Your task to perform on an android device: turn on wifi Image 0: 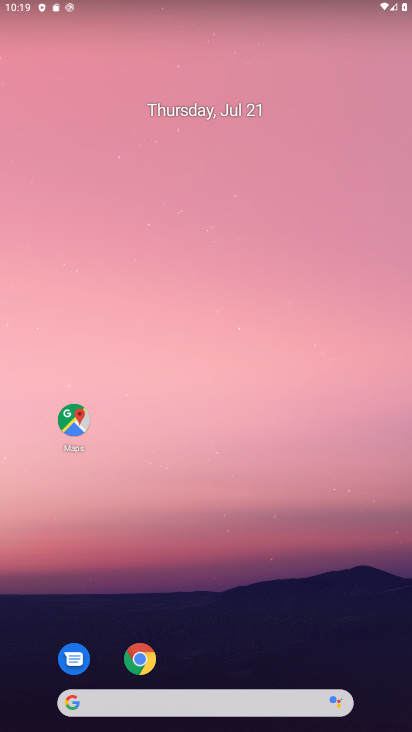
Step 0: drag from (223, 730) to (226, 158)
Your task to perform on an android device: turn on wifi Image 1: 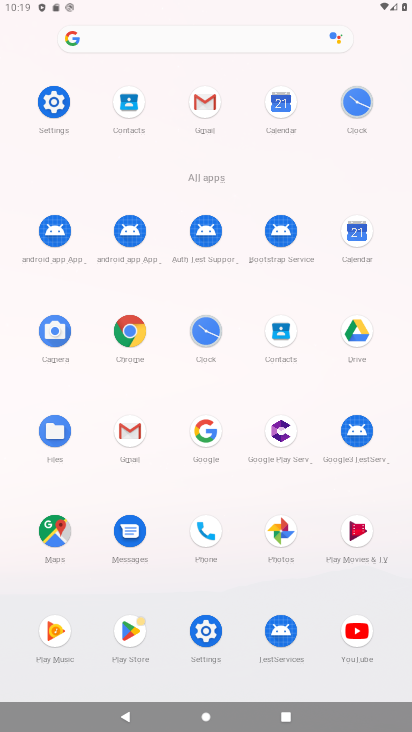
Step 1: click (60, 99)
Your task to perform on an android device: turn on wifi Image 2: 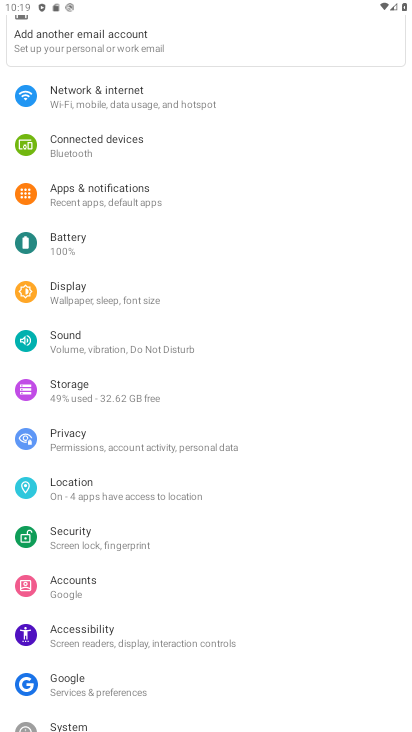
Step 2: click (67, 94)
Your task to perform on an android device: turn on wifi Image 3: 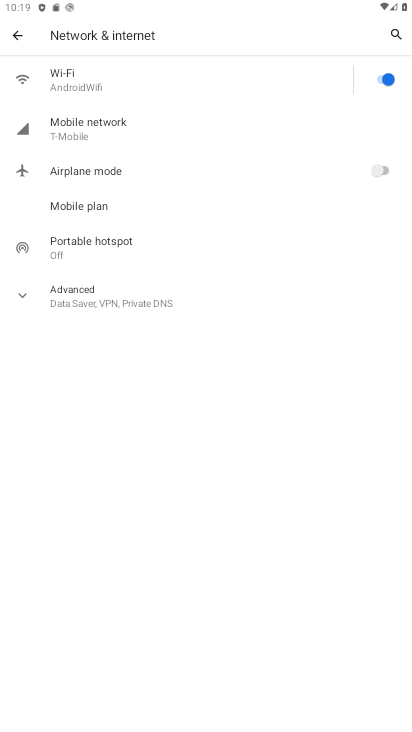
Step 3: task complete